Your task to perform on an android device: turn pop-ups on in chrome Image 0: 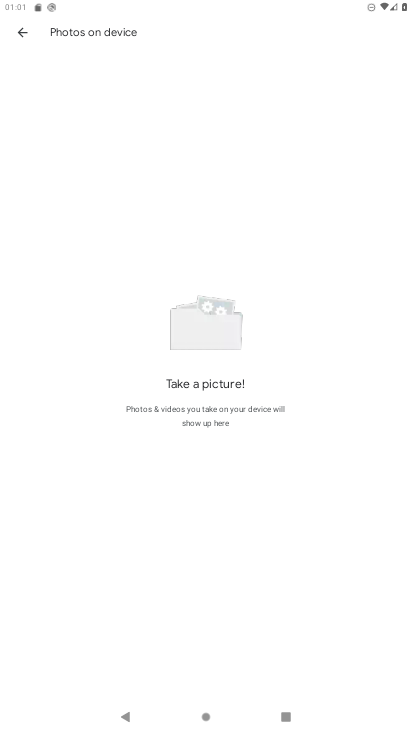
Step 0: press home button
Your task to perform on an android device: turn pop-ups on in chrome Image 1: 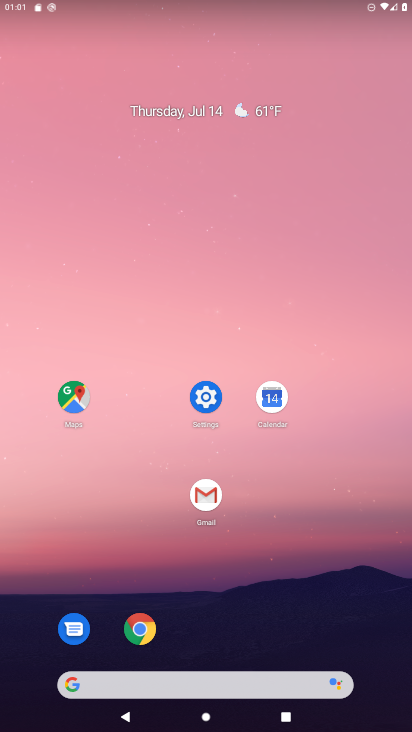
Step 1: click (145, 628)
Your task to perform on an android device: turn pop-ups on in chrome Image 2: 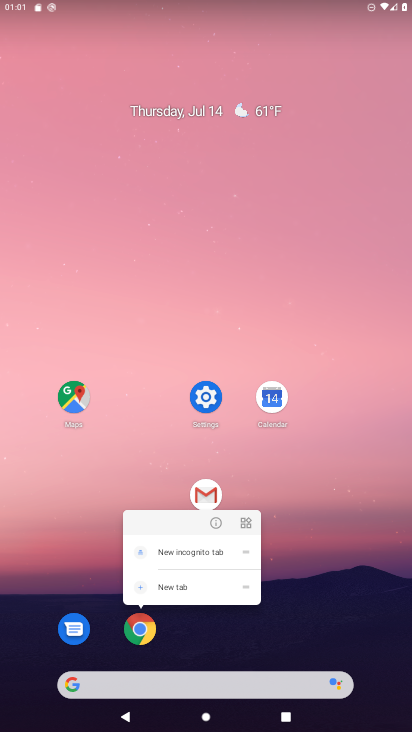
Step 2: click (143, 629)
Your task to perform on an android device: turn pop-ups on in chrome Image 3: 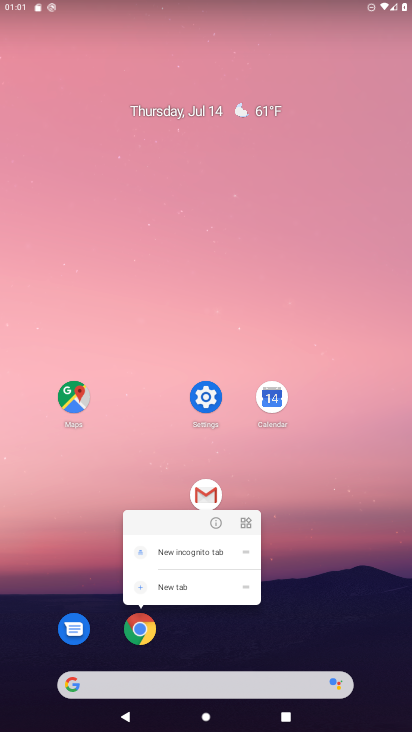
Step 3: click (143, 629)
Your task to perform on an android device: turn pop-ups on in chrome Image 4: 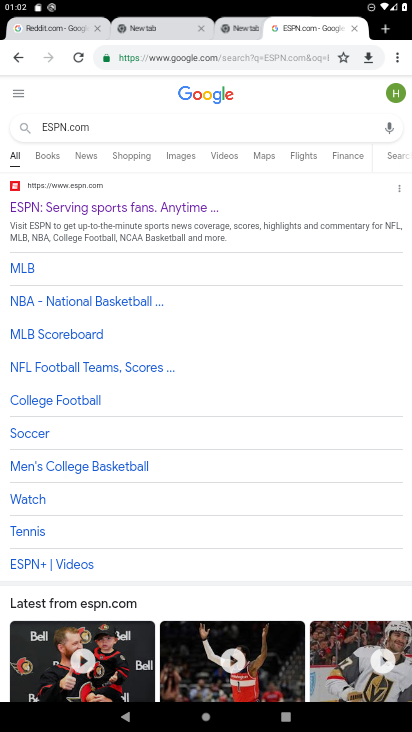
Step 4: click (374, 144)
Your task to perform on an android device: turn pop-ups on in chrome Image 5: 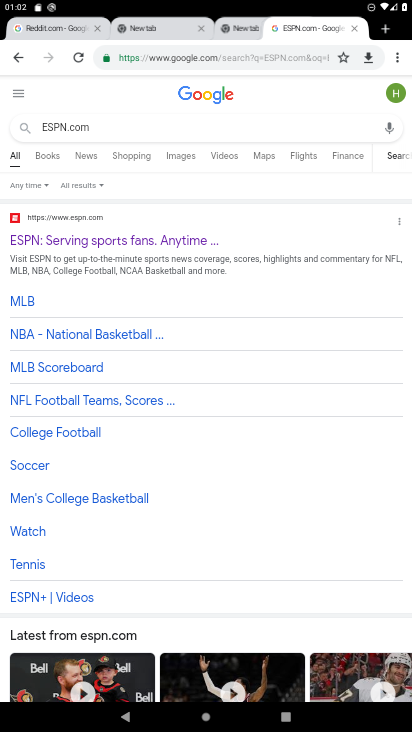
Step 5: click (394, 55)
Your task to perform on an android device: turn pop-ups on in chrome Image 6: 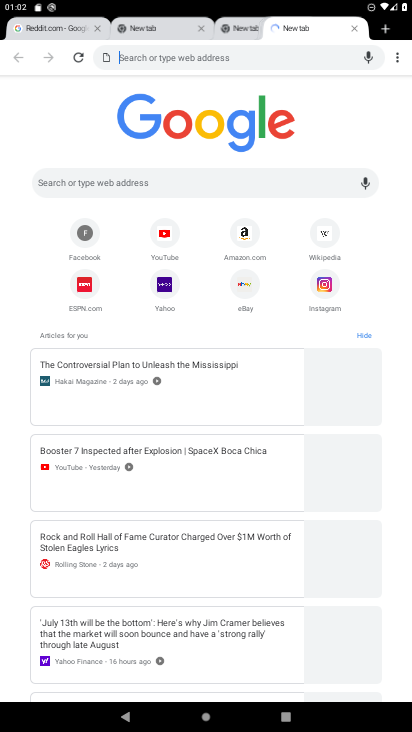
Step 6: click (396, 69)
Your task to perform on an android device: turn pop-ups on in chrome Image 7: 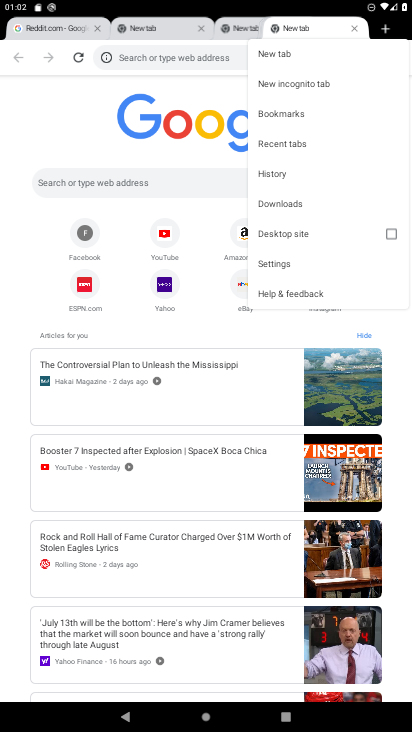
Step 7: click (290, 263)
Your task to perform on an android device: turn pop-ups on in chrome Image 8: 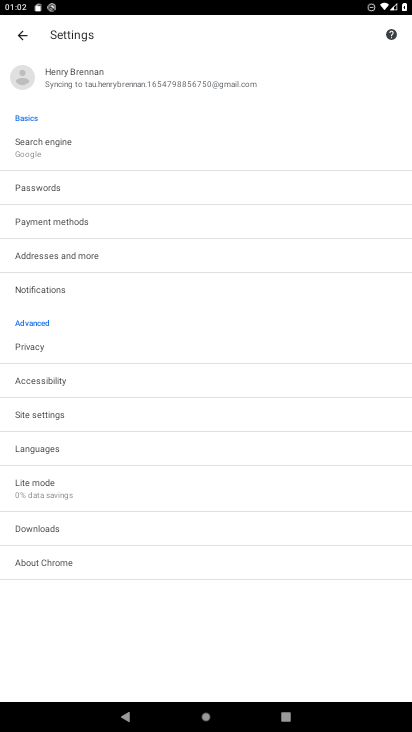
Step 8: click (35, 410)
Your task to perform on an android device: turn pop-ups on in chrome Image 9: 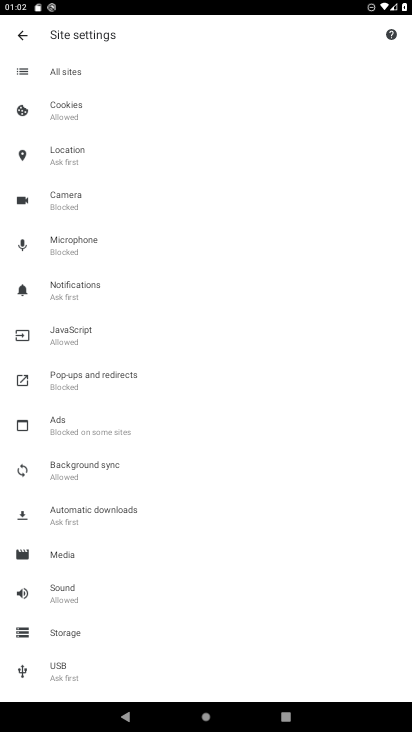
Step 9: click (86, 379)
Your task to perform on an android device: turn pop-ups on in chrome Image 10: 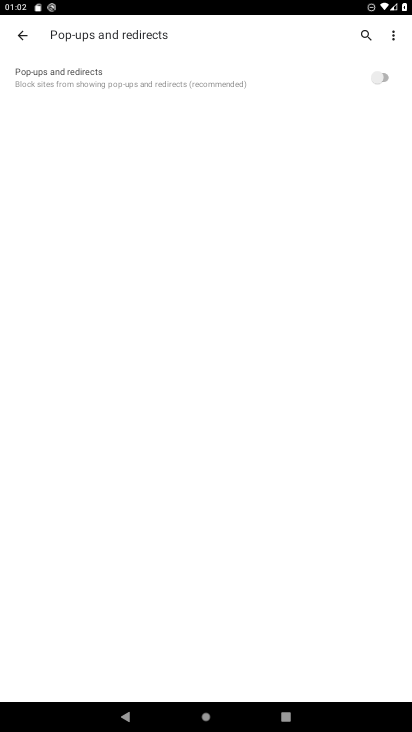
Step 10: click (379, 78)
Your task to perform on an android device: turn pop-ups on in chrome Image 11: 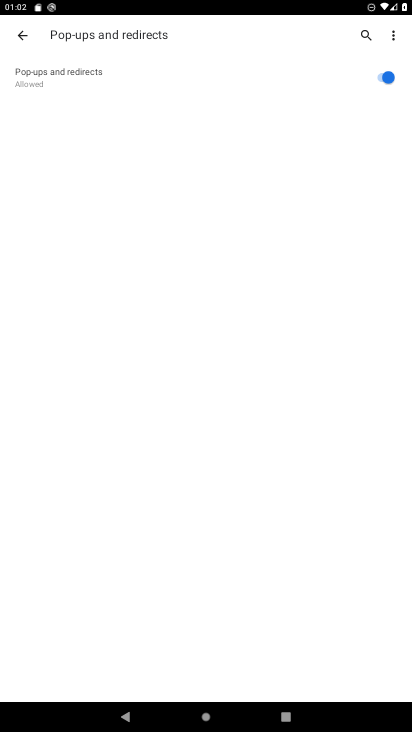
Step 11: task complete